Your task to perform on an android device: open chrome and create a bookmark for the current page Image 0: 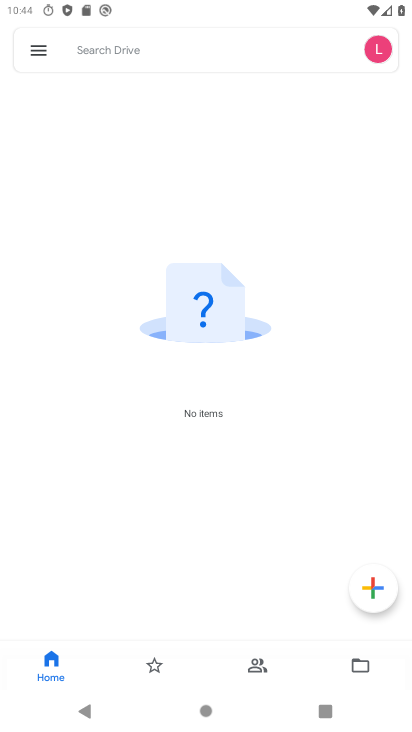
Step 0: press home button
Your task to perform on an android device: open chrome and create a bookmark for the current page Image 1: 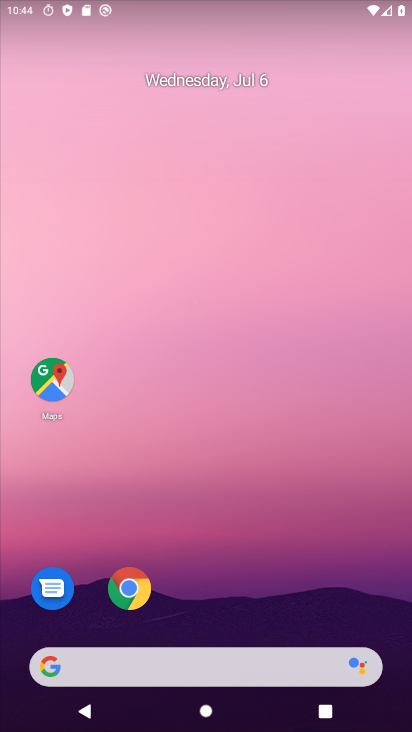
Step 1: click (133, 589)
Your task to perform on an android device: open chrome and create a bookmark for the current page Image 2: 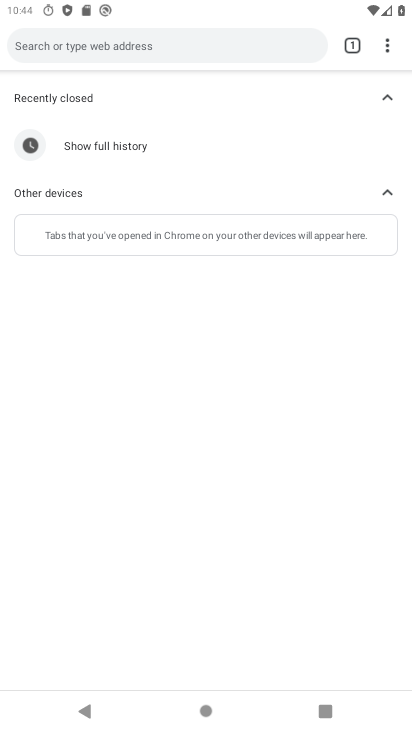
Step 2: click (385, 48)
Your task to perform on an android device: open chrome and create a bookmark for the current page Image 3: 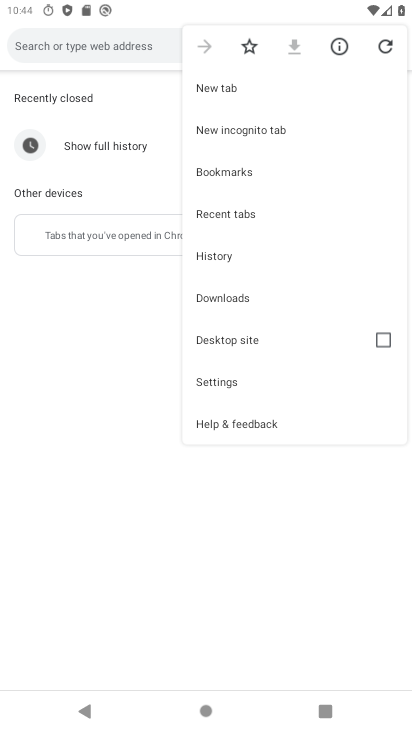
Step 3: click (248, 41)
Your task to perform on an android device: open chrome and create a bookmark for the current page Image 4: 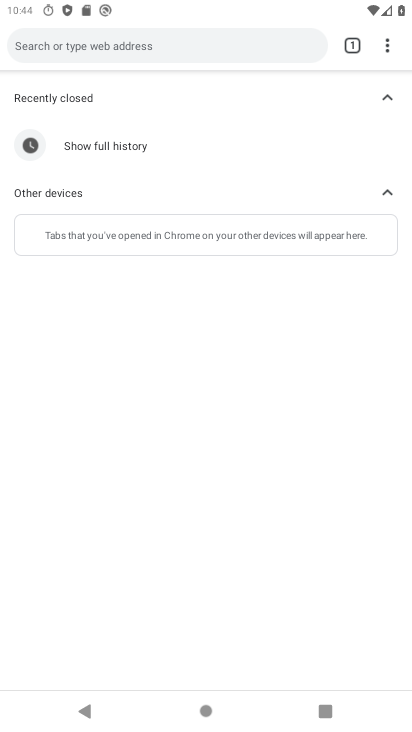
Step 4: task complete